Your task to perform on an android device: Add "razer huntsman" to the cart on bestbuy, then select checkout. Image 0: 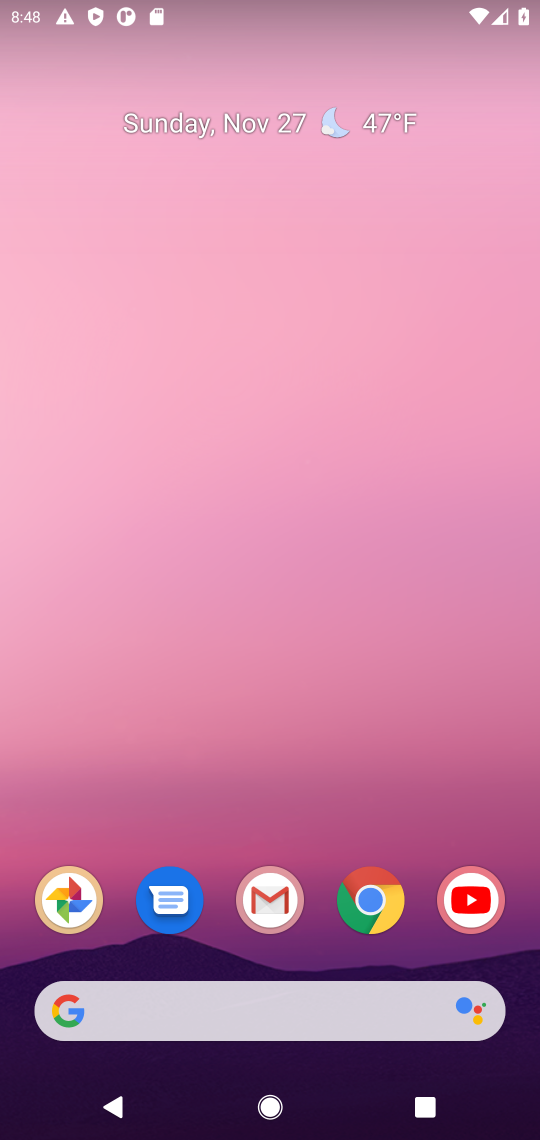
Step 0: click (365, 906)
Your task to perform on an android device: Add "razer huntsman" to the cart on bestbuy, then select checkout. Image 1: 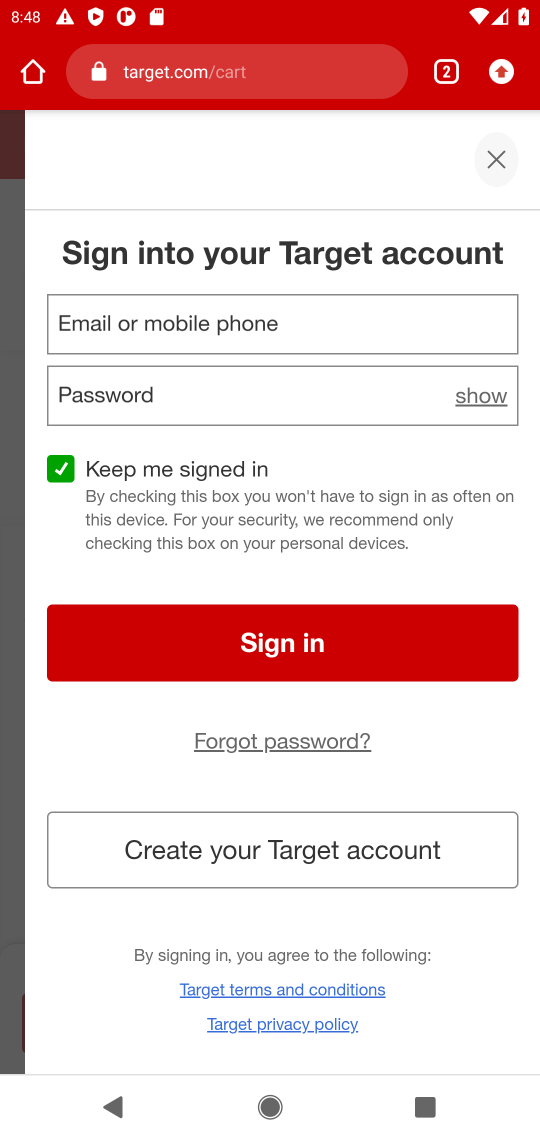
Step 1: click (161, 74)
Your task to perform on an android device: Add "razer huntsman" to the cart on bestbuy, then select checkout. Image 2: 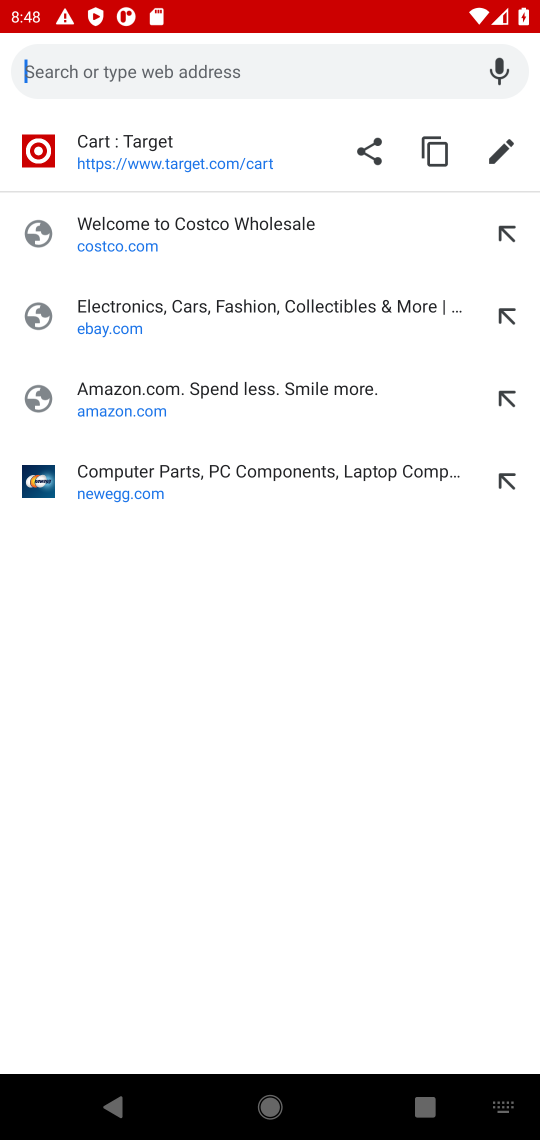
Step 2: type "bestbuy.com"
Your task to perform on an android device: Add "razer huntsman" to the cart on bestbuy, then select checkout. Image 3: 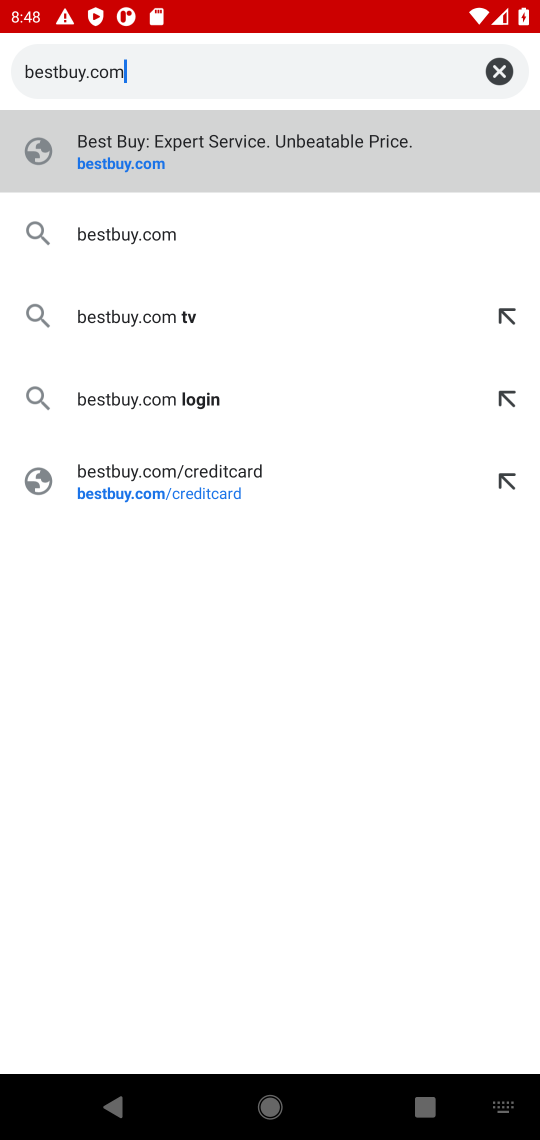
Step 3: click (128, 152)
Your task to perform on an android device: Add "razer huntsman" to the cart on bestbuy, then select checkout. Image 4: 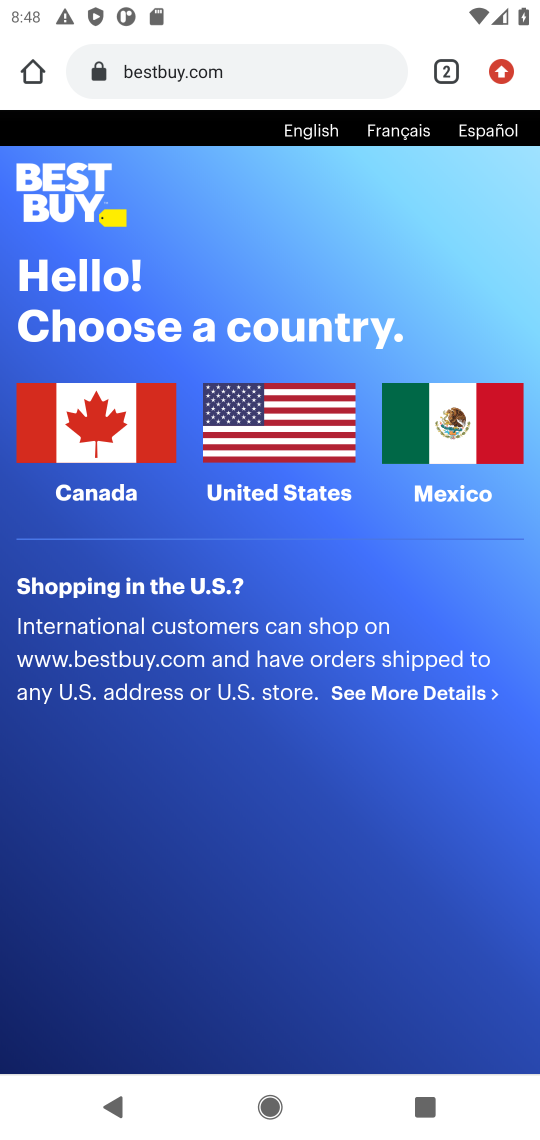
Step 4: click (273, 412)
Your task to perform on an android device: Add "razer huntsman" to the cart on bestbuy, then select checkout. Image 5: 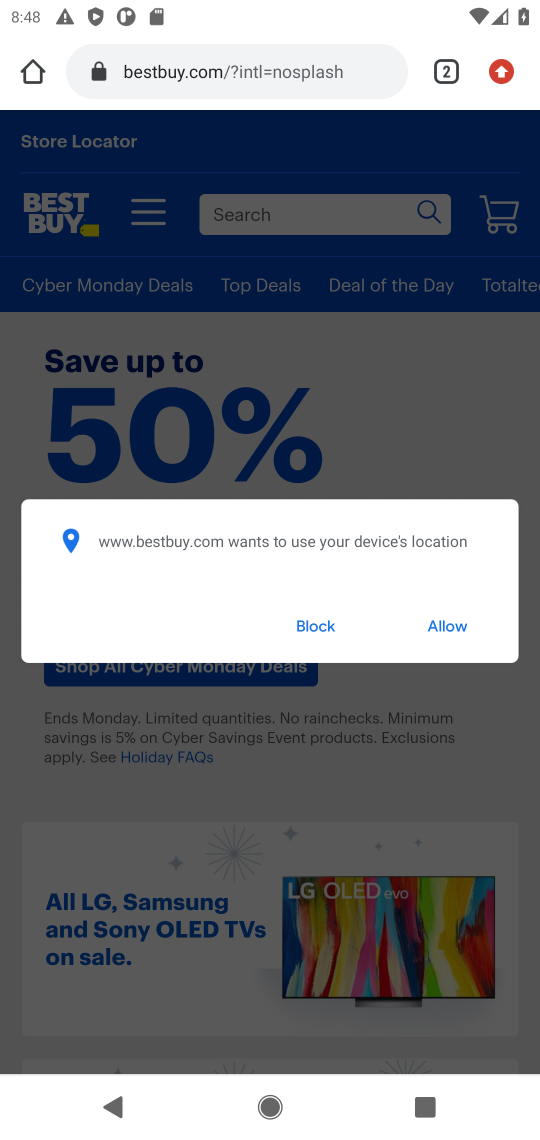
Step 5: click (308, 630)
Your task to perform on an android device: Add "razer huntsman" to the cart on bestbuy, then select checkout. Image 6: 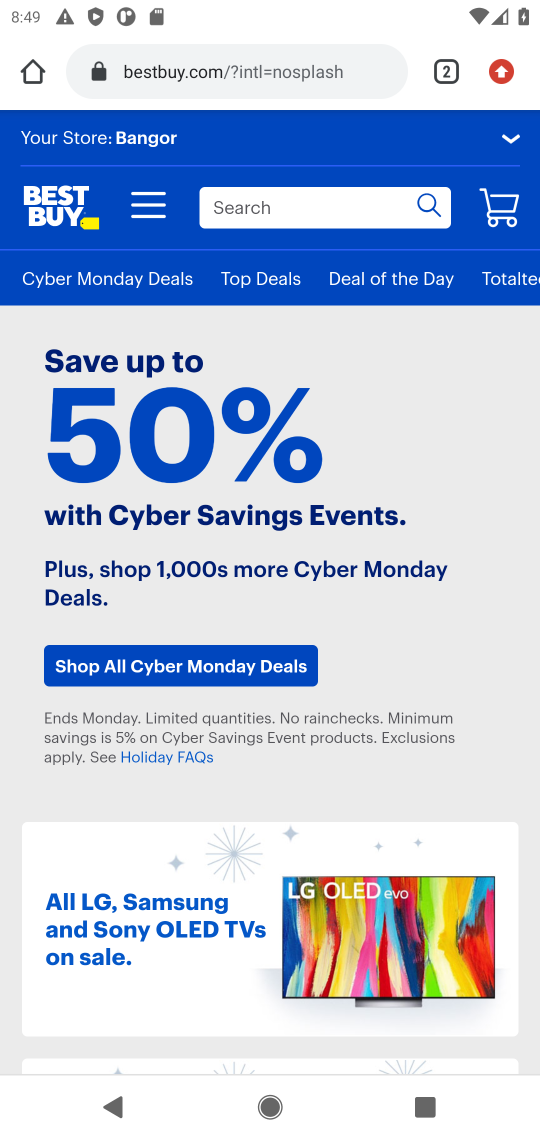
Step 6: click (259, 198)
Your task to perform on an android device: Add "razer huntsman" to the cart on bestbuy, then select checkout. Image 7: 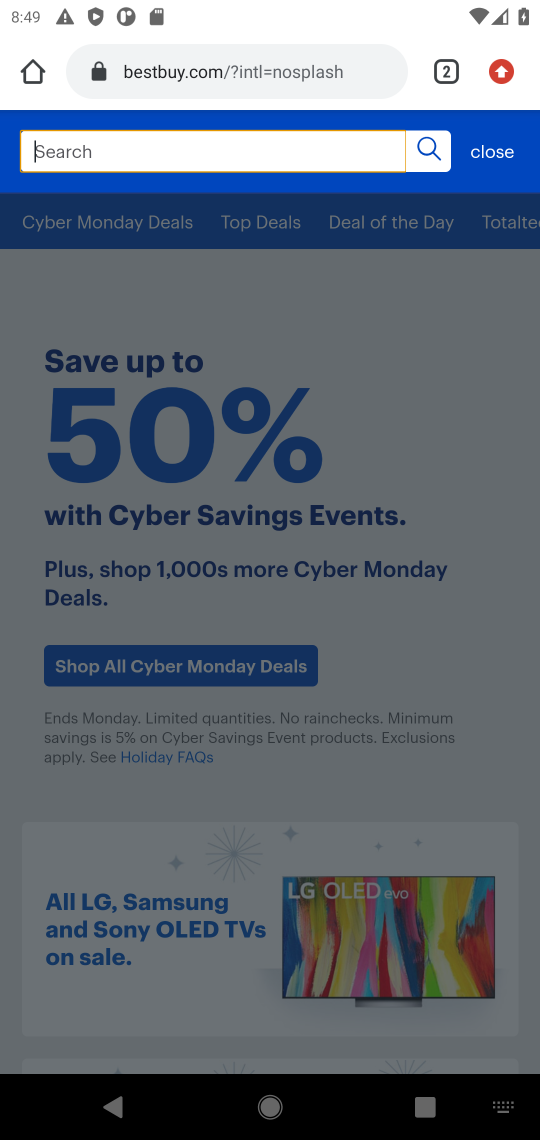
Step 7: type "razer huntsman"
Your task to perform on an android device: Add "razer huntsman" to the cart on bestbuy, then select checkout. Image 8: 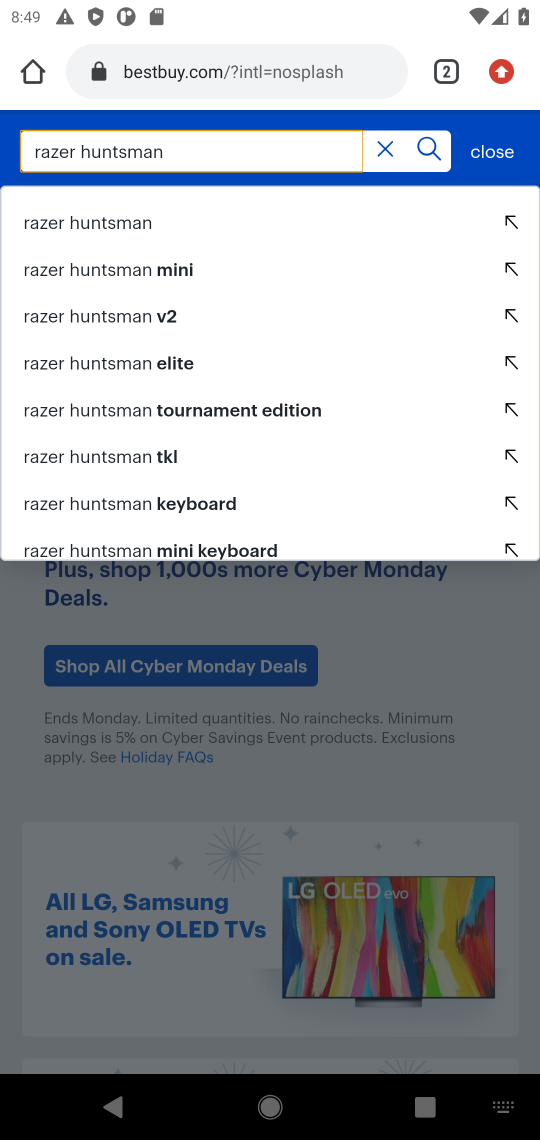
Step 8: click (76, 229)
Your task to perform on an android device: Add "razer huntsman" to the cart on bestbuy, then select checkout. Image 9: 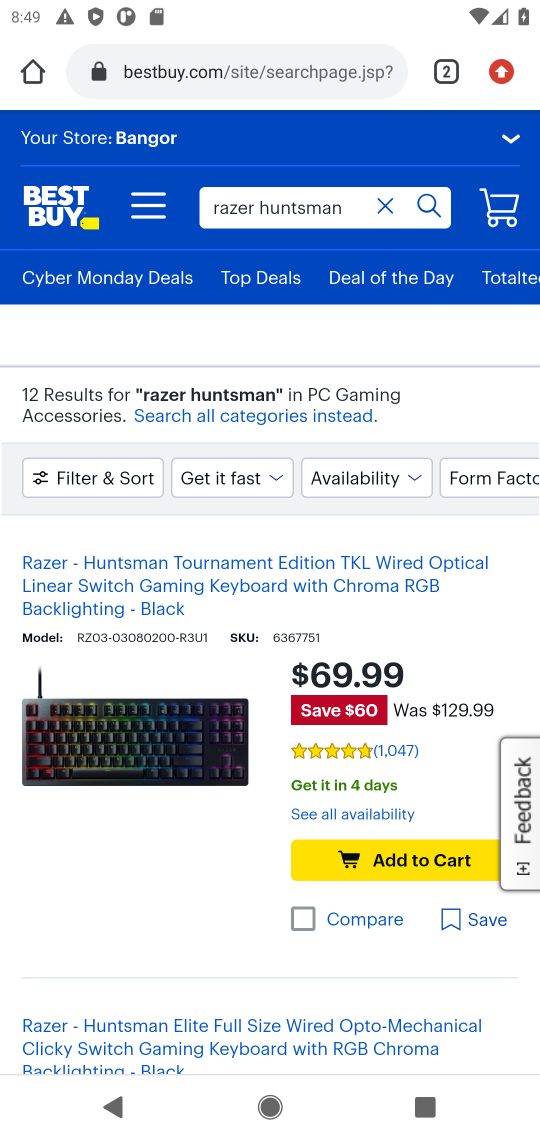
Step 9: click (380, 858)
Your task to perform on an android device: Add "razer huntsman" to the cart on bestbuy, then select checkout. Image 10: 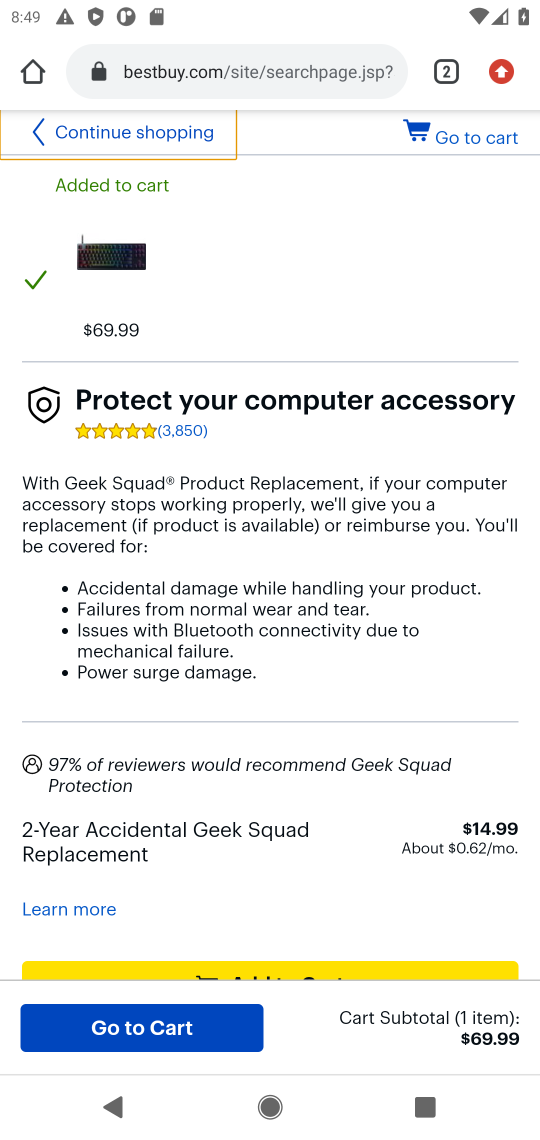
Step 10: click (461, 144)
Your task to perform on an android device: Add "razer huntsman" to the cart on bestbuy, then select checkout. Image 11: 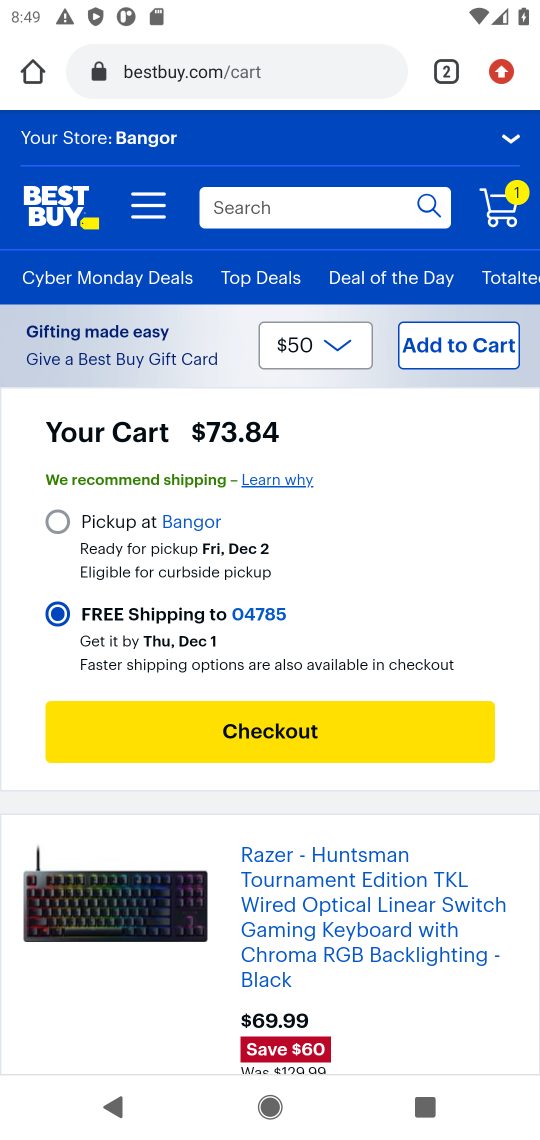
Step 11: click (265, 735)
Your task to perform on an android device: Add "razer huntsman" to the cart on bestbuy, then select checkout. Image 12: 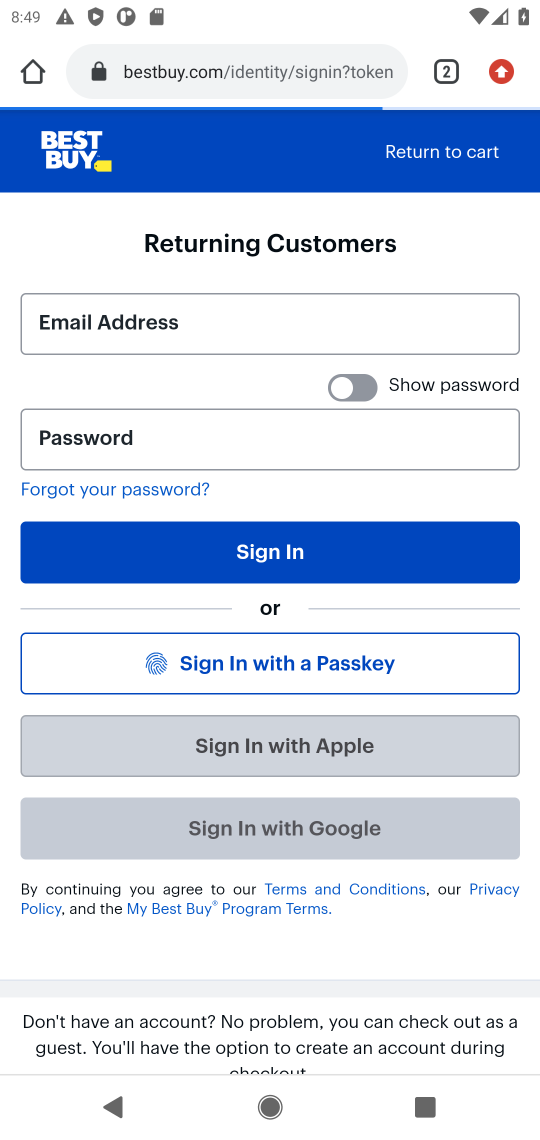
Step 12: task complete